Your task to perform on an android device: Find coffee shops on Maps Image 0: 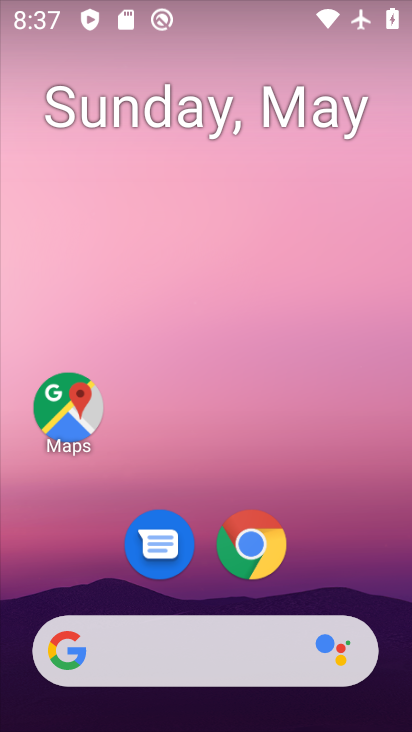
Step 0: drag from (327, 528) to (247, 2)
Your task to perform on an android device: Find coffee shops on Maps Image 1: 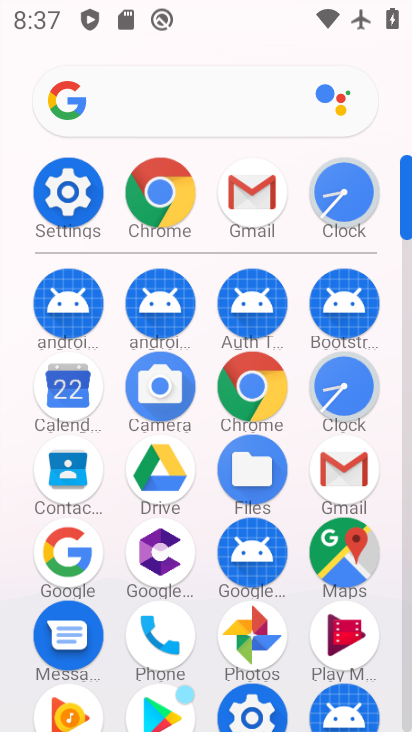
Step 1: drag from (1, 579) to (10, 321)
Your task to perform on an android device: Find coffee shops on Maps Image 2: 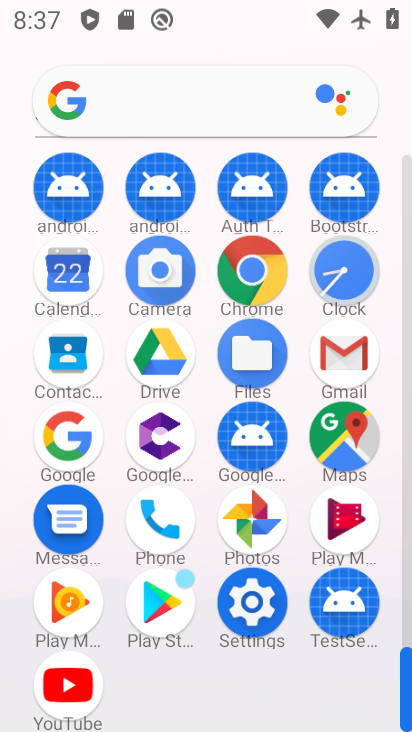
Step 2: click (343, 426)
Your task to perform on an android device: Find coffee shops on Maps Image 3: 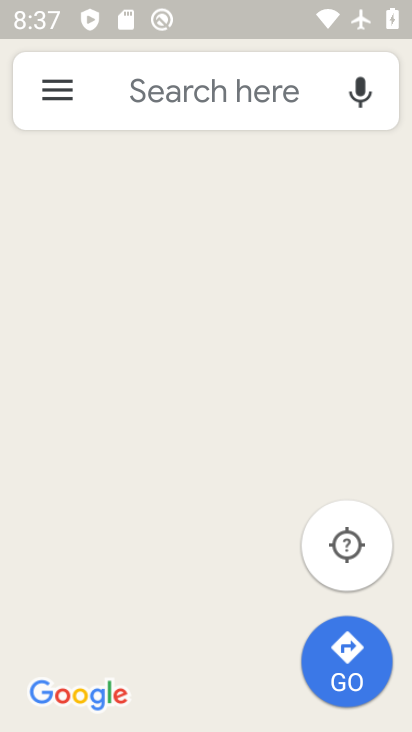
Step 3: click (234, 92)
Your task to perform on an android device: Find coffee shops on Maps Image 4: 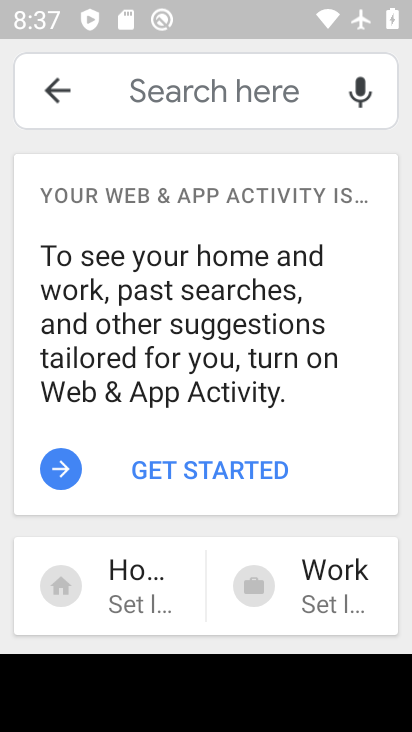
Step 4: type "coffee shops"
Your task to perform on an android device: Find coffee shops on Maps Image 5: 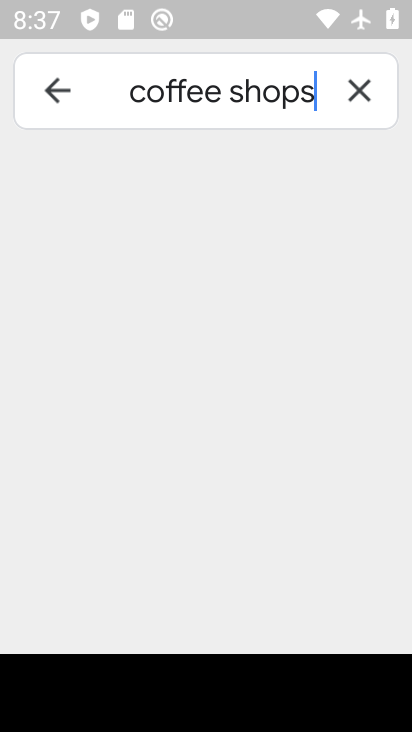
Step 5: type ""
Your task to perform on an android device: Find coffee shops on Maps Image 6: 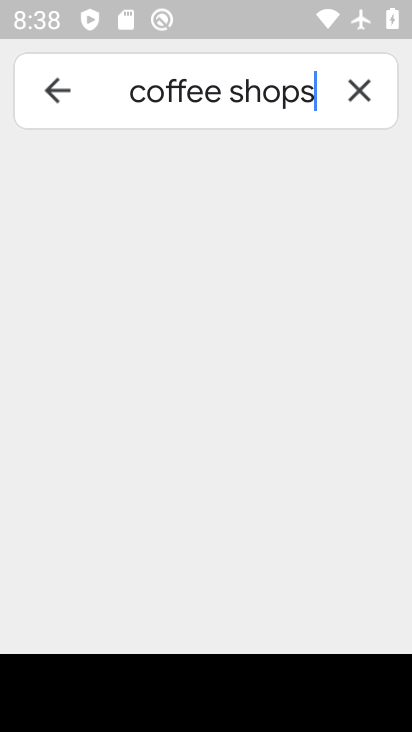
Step 6: type ""
Your task to perform on an android device: Find coffee shops on Maps Image 7: 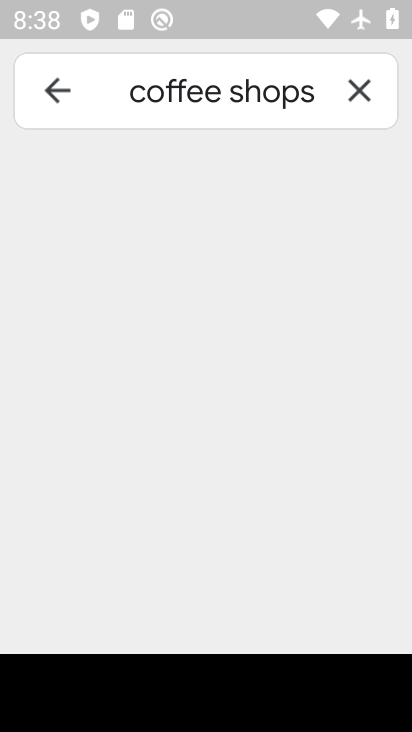
Step 7: task complete